Your task to perform on an android device: Open sound settings Image 0: 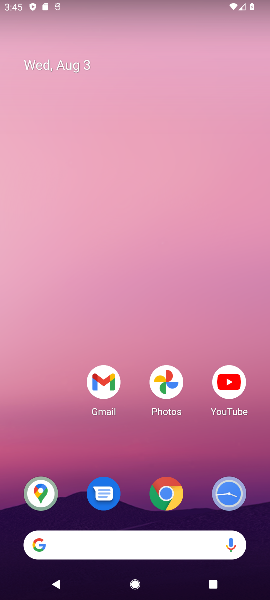
Step 0: drag from (111, 467) to (15, 84)
Your task to perform on an android device: Open sound settings Image 1: 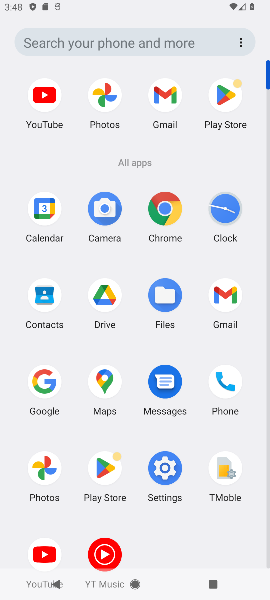
Step 1: click (154, 470)
Your task to perform on an android device: Open sound settings Image 2: 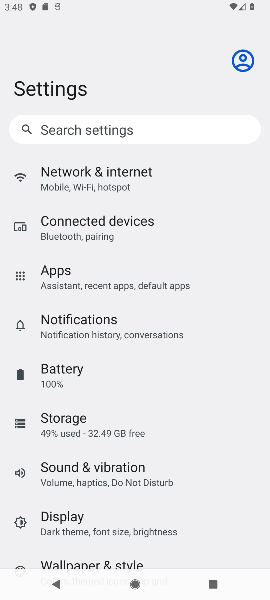
Step 2: drag from (103, 492) to (87, 314)
Your task to perform on an android device: Open sound settings Image 3: 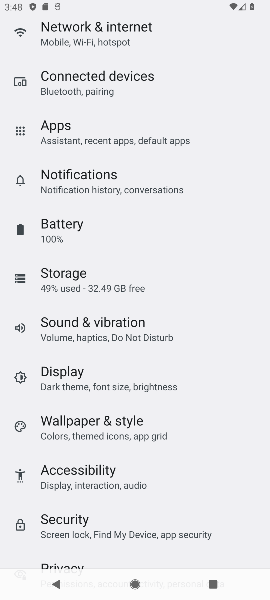
Step 3: click (96, 330)
Your task to perform on an android device: Open sound settings Image 4: 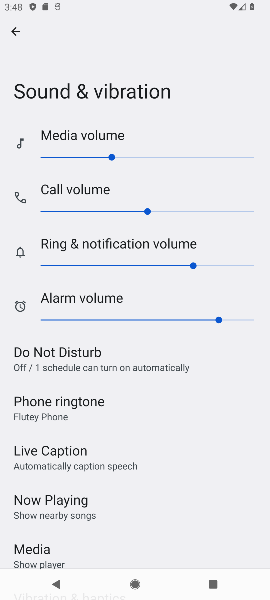
Step 4: task complete